Your task to perform on an android device: Open Maps and search for coffee Image 0: 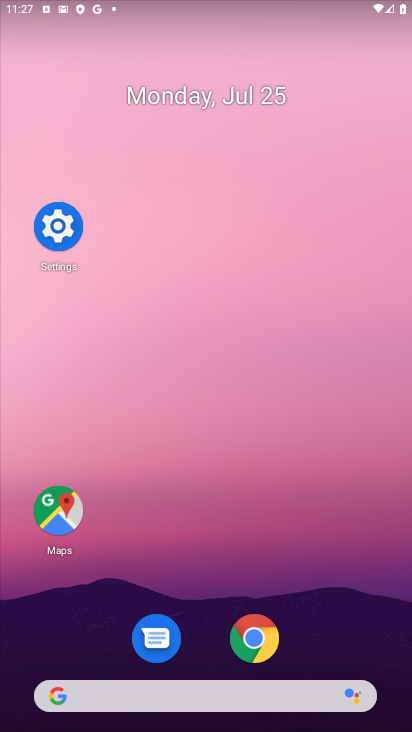
Step 0: click (71, 490)
Your task to perform on an android device: Open Maps and search for coffee Image 1: 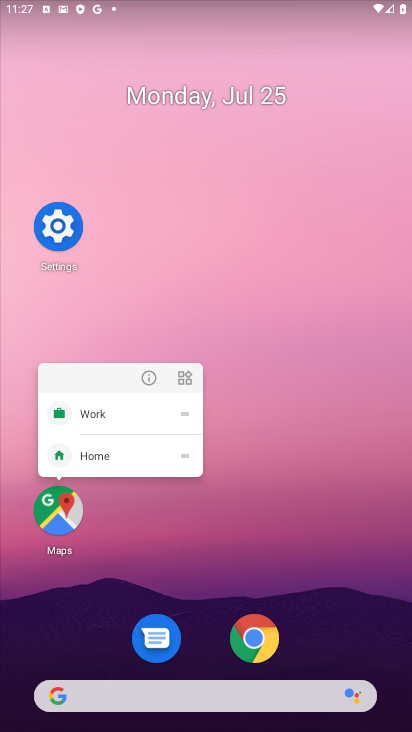
Step 1: click (81, 526)
Your task to perform on an android device: Open Maps and search for coffee Image 2: 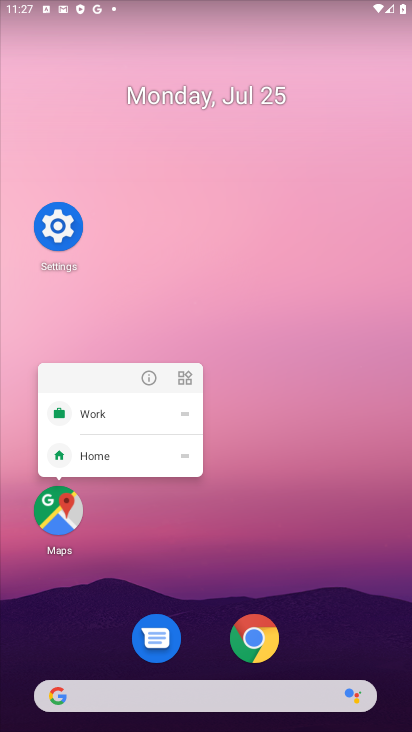
Step 2: click (82, 525)
Your task to perform on an android device: Open Maps and search for coffee Image 3: 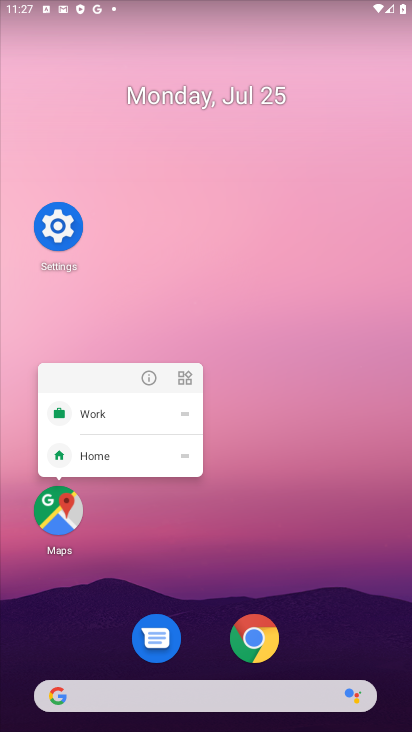
Step 3: click (66, 511)
Your task to perform on an android device: Open Maps and search for coffee Image 4: 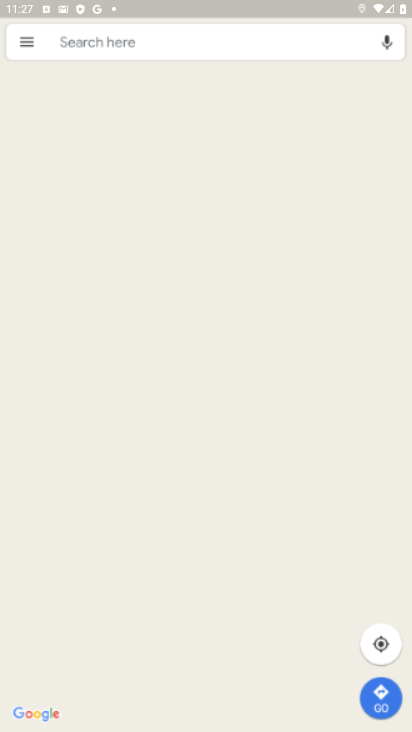
Step 4: click (208, 45)
Your task to perform on an android device: Open Maps and search for coffee Image 5: 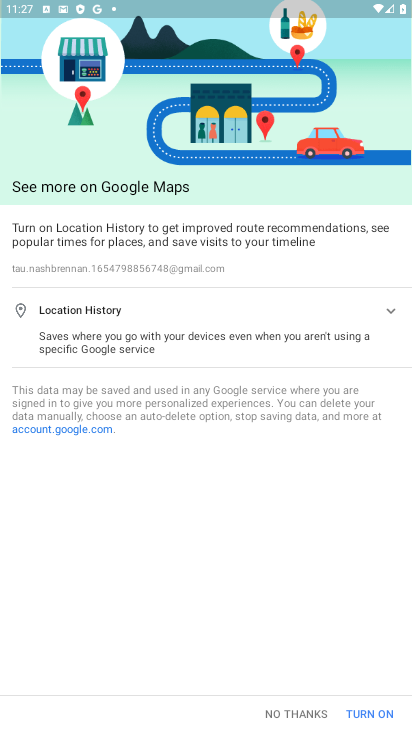
Step 5: click (359, 716)
Your task to perform on an android device: Open Maps and search for coffee Image 6: 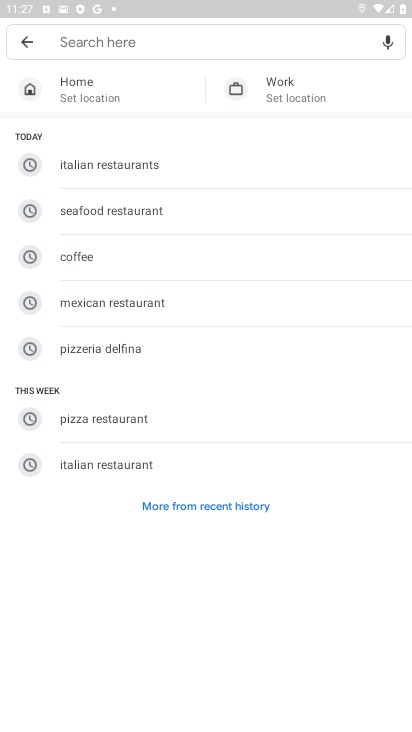
Step 6: click (158, 44)
Your task to perform on an android device: Open Maps and search for coffee Image 7: 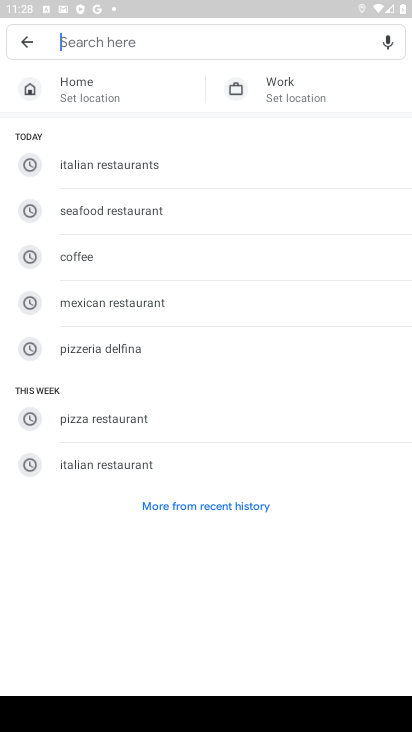
Step 7: click (192, 270)
Your task to perform on an android device: Open Maps and search for coffee Image 8: 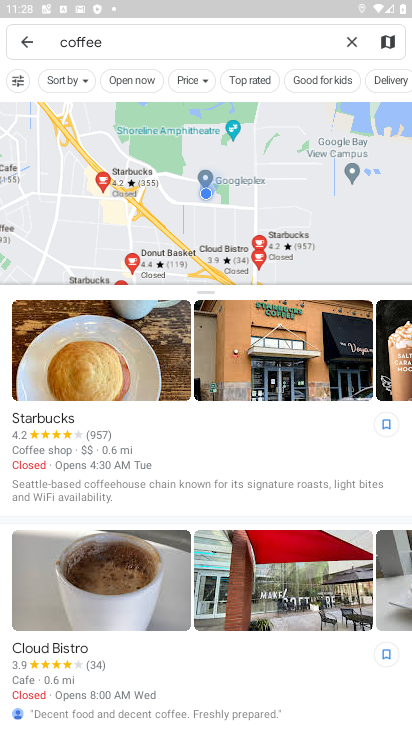
Step 8: task complete